Your task to perform on an android device: Open network settings Image 0: 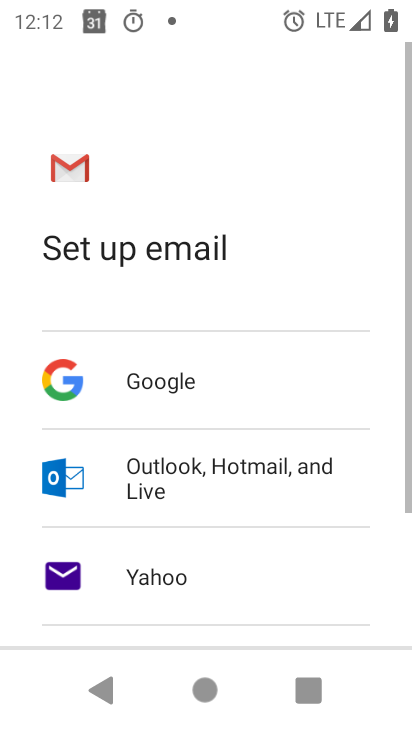
Step 0: press home button
Your task to perform on an android device: Open network settings Image 1: 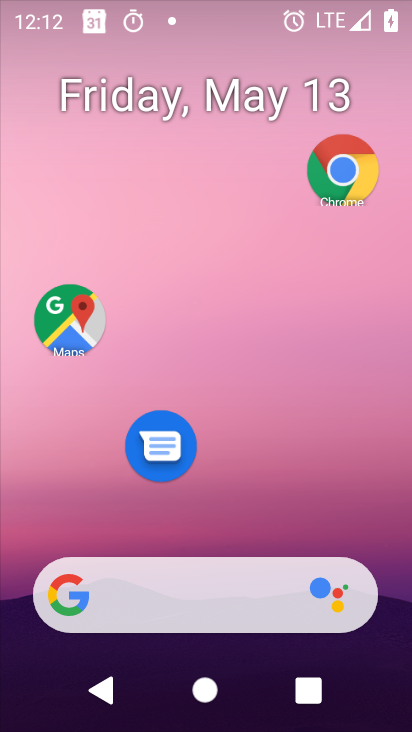
Step 1: drag from (313, 593) to (333, 9)
Your task to perform on an android device: Open network settings Image 2: 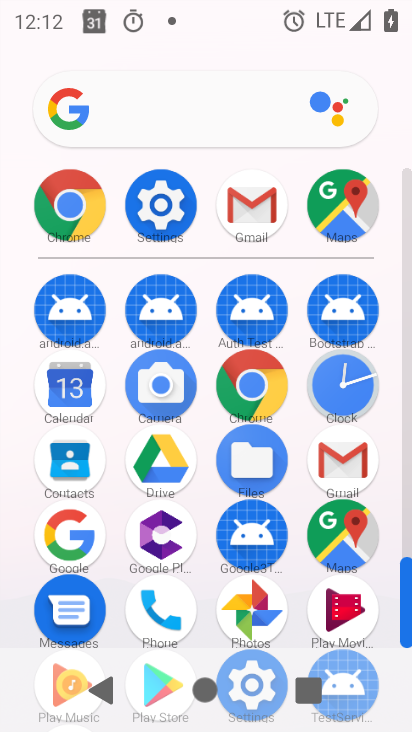
Step 2: click (170, 215)
Your task to perform on an android device: Open network settings Image 3: 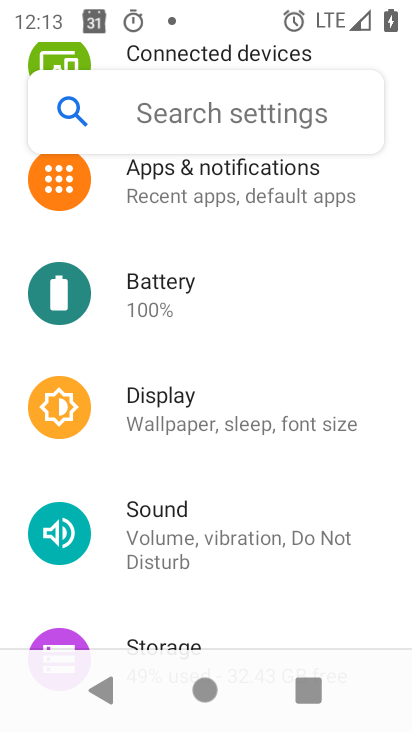
Step 3: drag from (164, 204) to (228, 647)
Your task to perform on an android device: Open network settings Image 4: 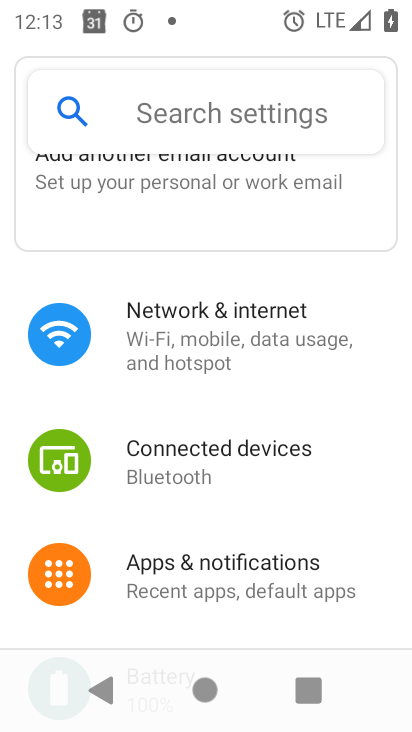
Step 4: click (196, 327)
Your task to perform on an android device: Open network settings Image 5: 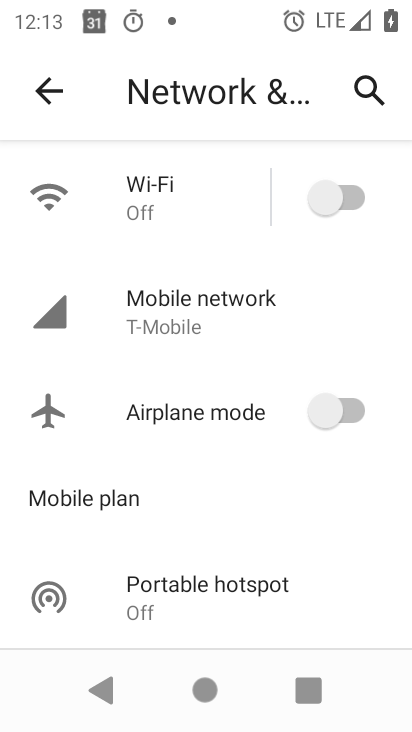
Step 5: task complete